Your task to perform on an android device: set the stopwatch Image 0: 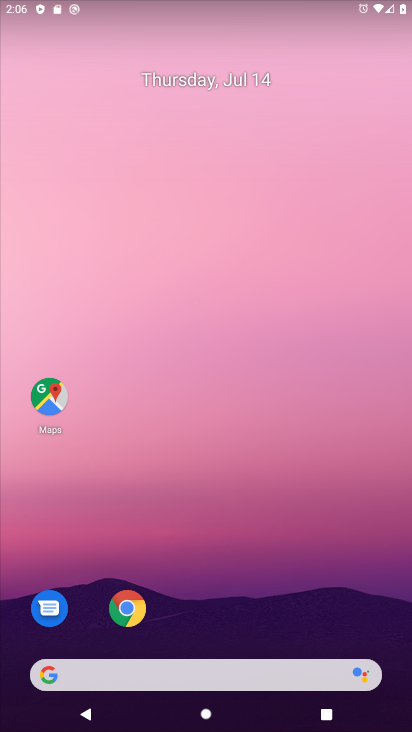
Step 0: drag from (244, 701) to (244, 128)
Your task to perform on an android device: set the stopwatch Image 1: 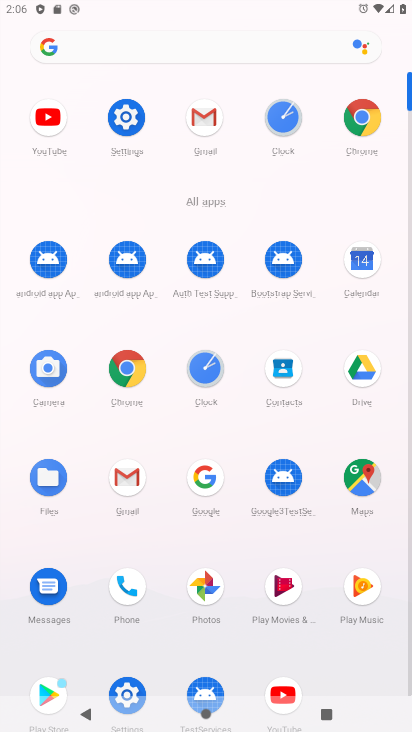
Step 1: click (202, 365)
Your task to perform on an android device: set the stopwatch Image 2: 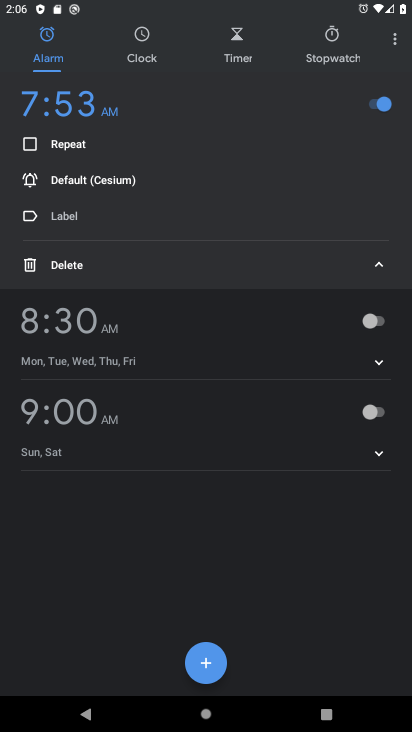
Step 2: click (325, 43)
Your task to perform on an android device: set the stopwatch Image 3: 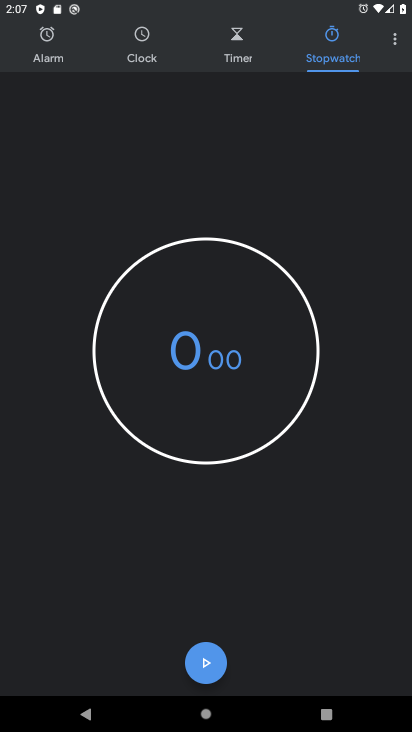
Step 3: task complete